Your task to perform on an android device: Open Youtube and go to the subscriptions tab Image 0: 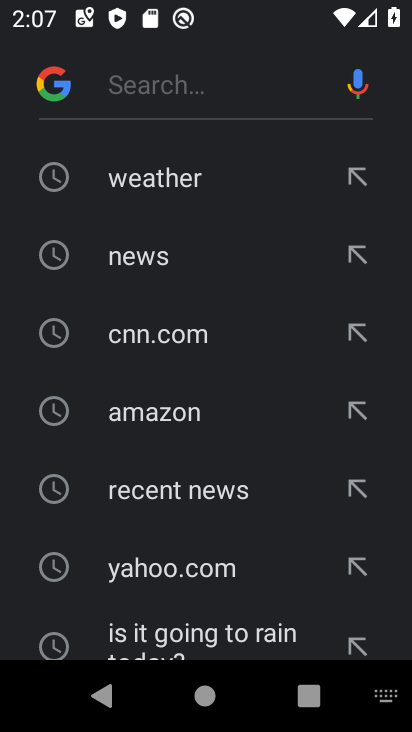
Step 0: press home button
Your task to perform on an android device: Open Youtube and go to the subscriptions tab Image 1: 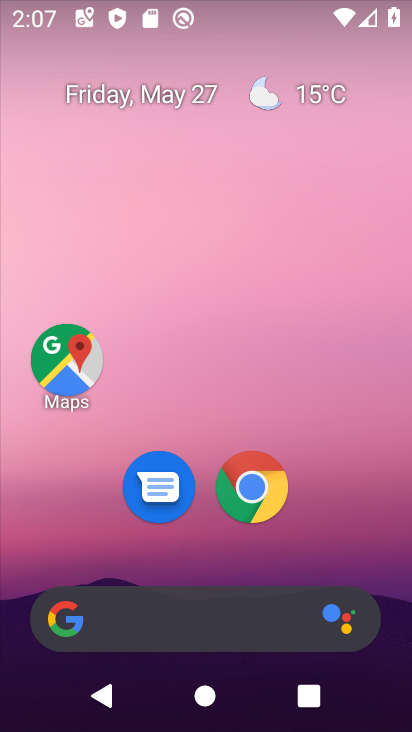
Step 1: drag from (206, 562) to (248, 26)
Your task to perform on an android device: Open Youtube and go to the subscriptions tab Image 2: 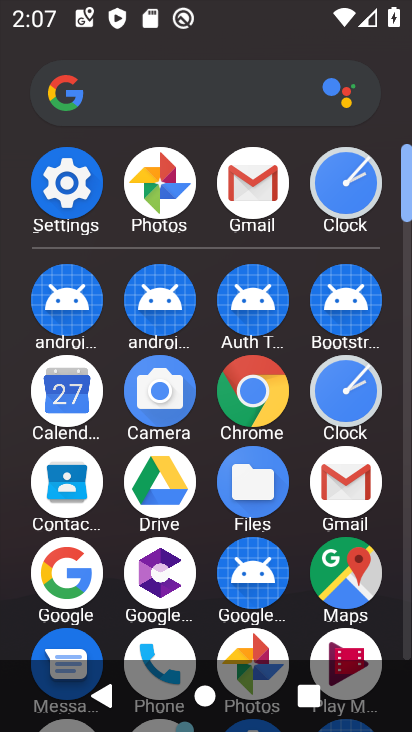
Step 2: drag from (214, 621) to (208, 178)
Your task to perform on an android device: Open Youtube and go to the subscriptions tab Image 3: 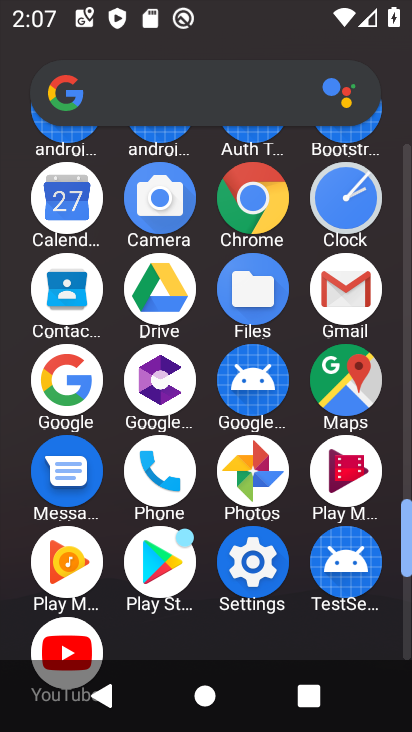
Step 3: click (79, 645)
Your task to perform on an android device: Open Youtube and go to the subscriptions tab Image 4: 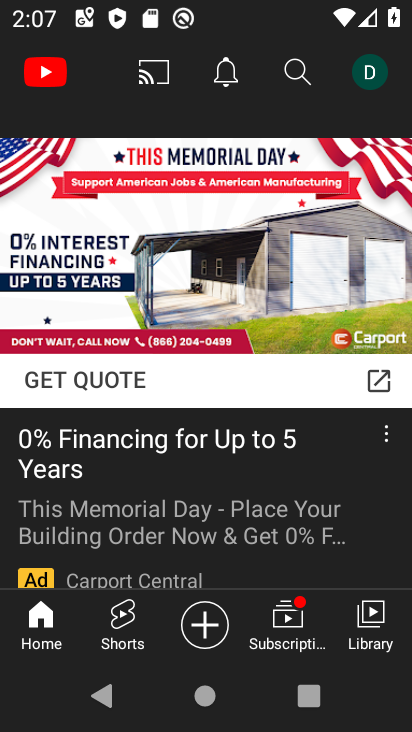
Step 4: click (282, 614)
Your task to perform on an android device: Open Youtube and go to the subscriptions tab Image 5: 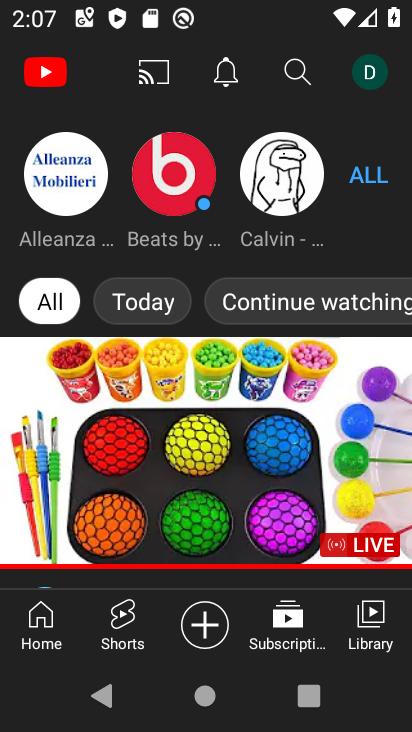
Step 5: task complete